Your task to perform on an android device: turn off picture-in-picture Image 0: 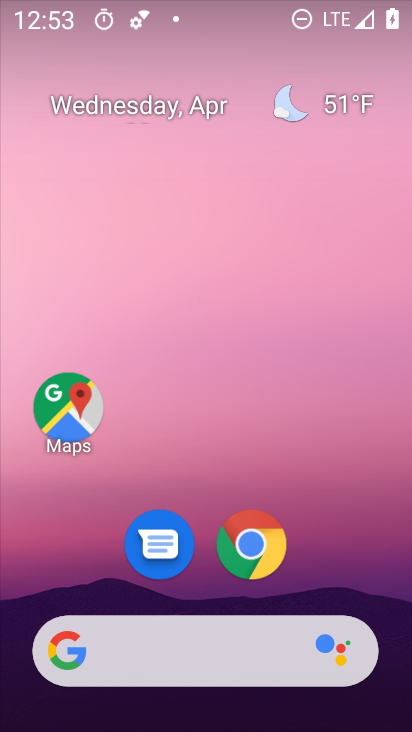
Step 0: drag from (349, 546) to (340, 149)
Your task to perform on an android device: turn off picture-in-picture Image 1: 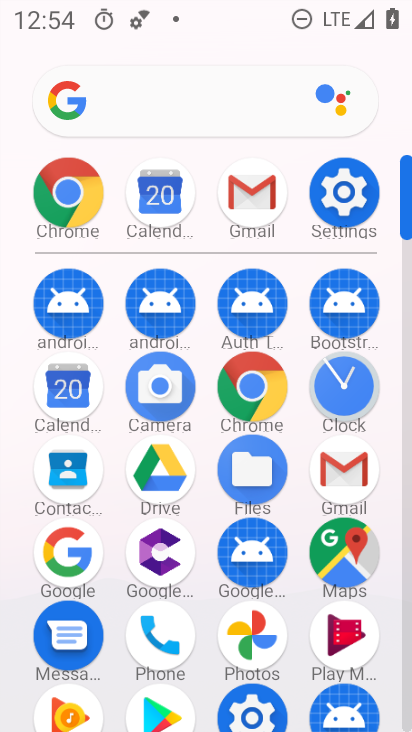
Step 1: click (365, 184)
Your task to perform on an android device: turn off picture-in-picture Image 2: 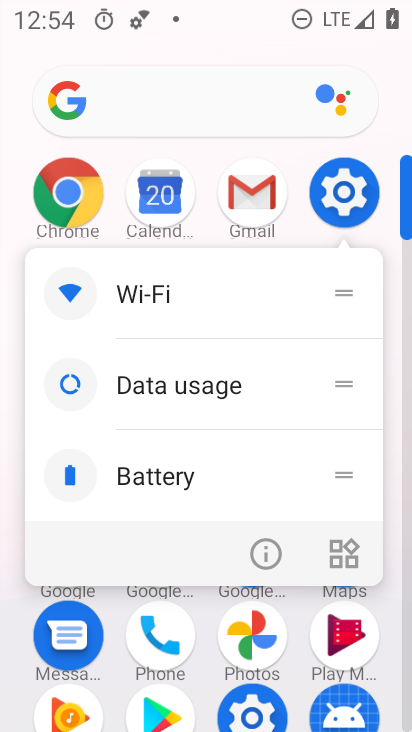
Step 2: click (346, 174)
Your task to perform on an android device: turn off picture-in-picture Image 3: 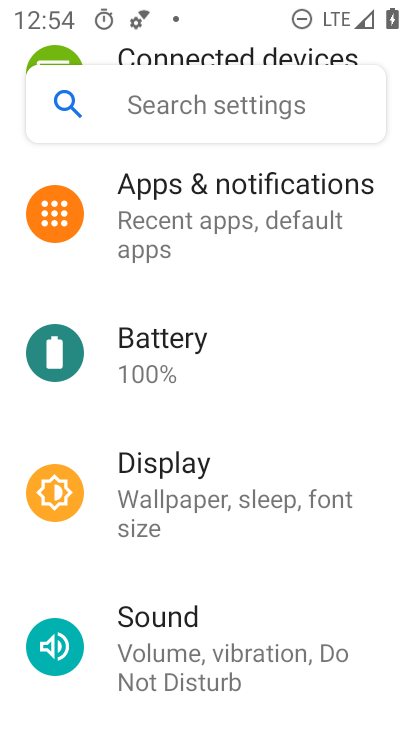
Step 3: drag from (380, 545) to (375, 421)
Your task to perform on an android device: turn off picture-in-picture Image 4: 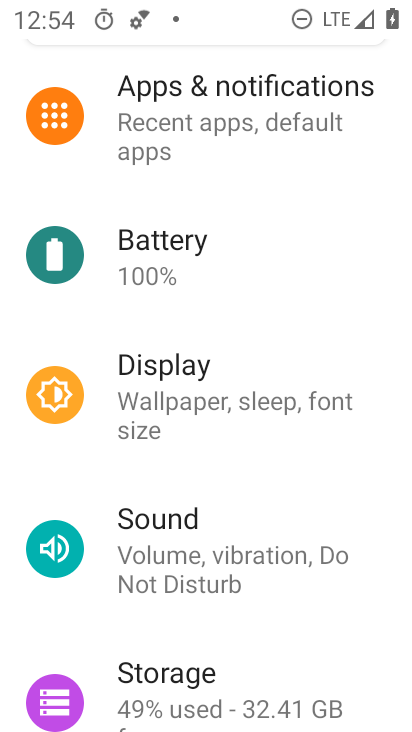
Step 4: drag from (348, 625) to (411, 423)
Your task to perform on an android device: turn off picture-in-picture Image 5: 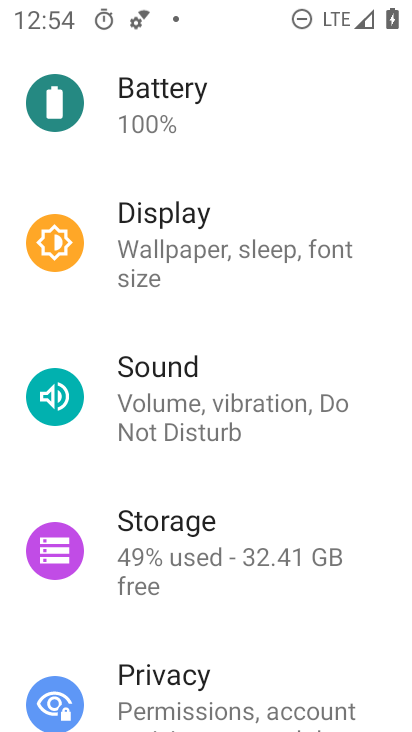
Step 5: drag from (375, 506) to (377, 280)
Your task to perform on an android device: turn off picture-in-picture Image 6: 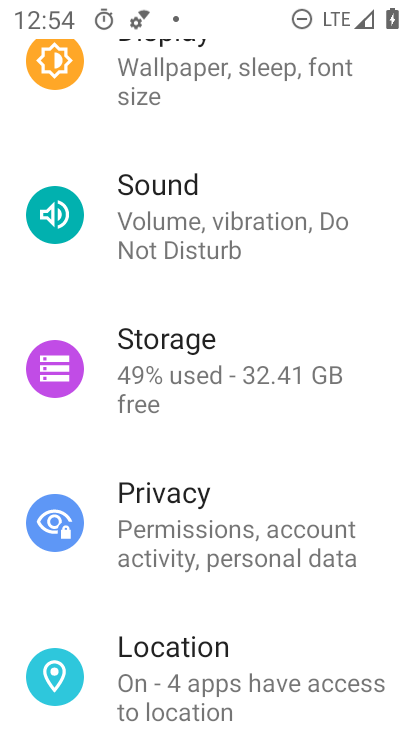
Step 6: drag from (375, 594) to (366, 398)
Your task to perform on an android device: turn off picture-in-picture Image 7: 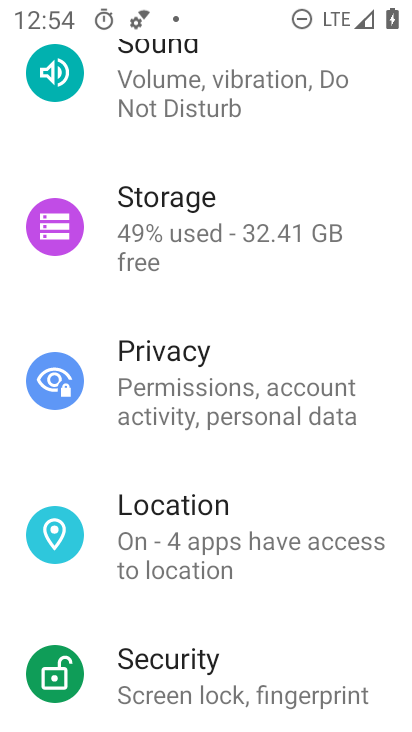
Step 7: drag from (362, 607) to (370, 449)
Your task to perform on an android device: turn off picture-in-picture Image 8: 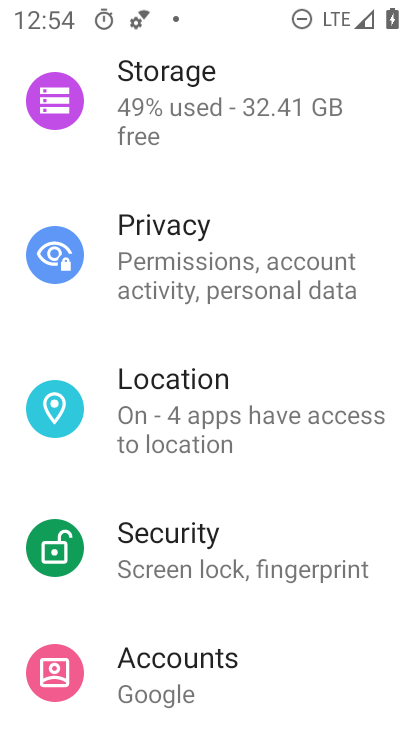
Step 8: drag from (366, 658) to (380, 502)
Your task to perform on an android device: turn off picture-in-picture Image 9: 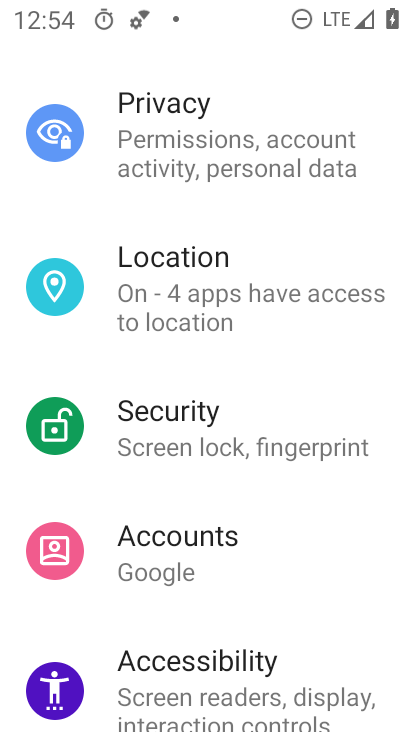
Step 9: drag from (341, 550) to (399, 352)
Your task to perform on an android device: turn off picture-in-picture Image 10: 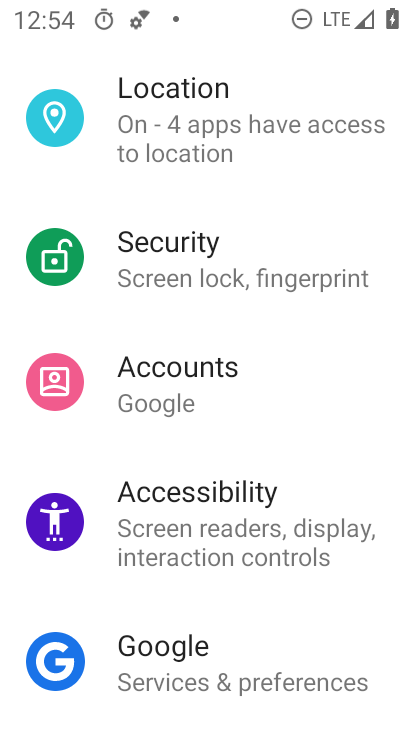
Step 10: drag from (340, 617) to (340, 367)
Your task to perform on an android device: turn off picture-in-picture Image 11: 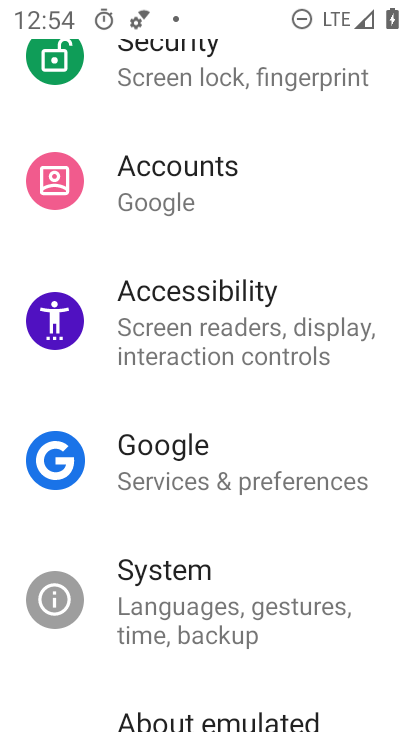
Step 11: drag from (369, 248) to (381, 413)
Your task to perform on an android device: turn off picture-in-picture Image 12: 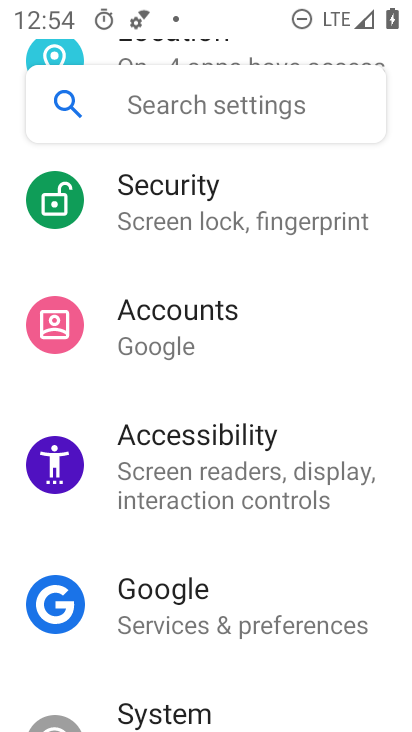
Step 12: drag from (391, 204) to (376, 407)
Your task to perform on an android device: turn off picture-in-picture Image 13: 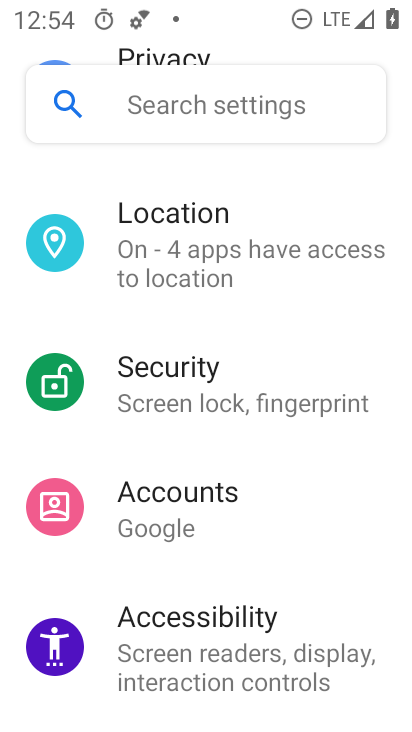
Step 13: drag from (395, 198) to (370, 385)
Your task to perform on an android device: turn off picture-in-picture Image 14: 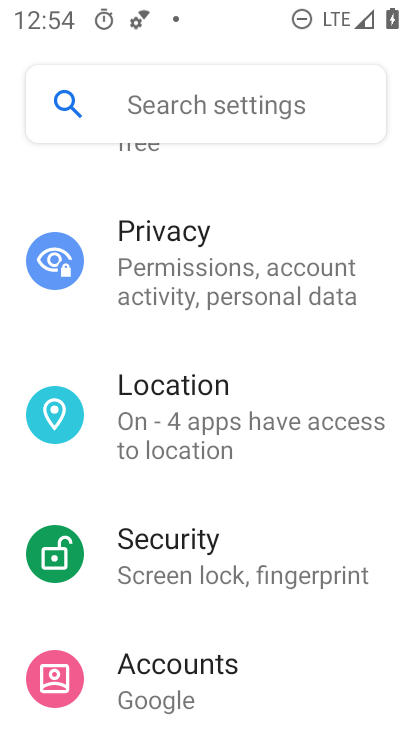
Step 14: drag from (386, 211) to (369, 392)
Your task to perform on an android device: turn off picture-in-picture Image 15: 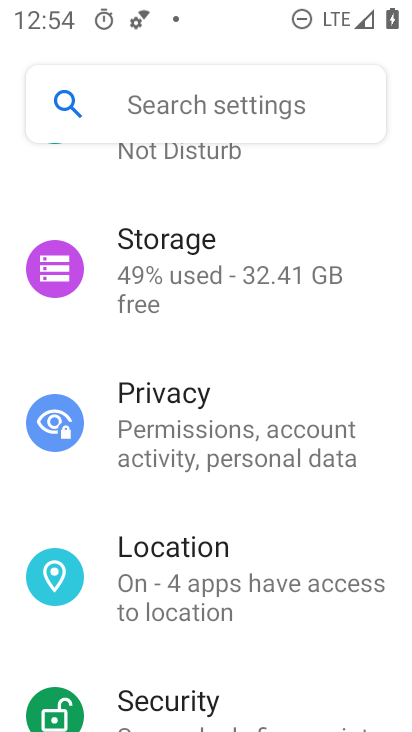
Step 15: drag from (366, 218) to (367, 412)
Your task to perform on an android device: turn off picture-in-picture Image 16: 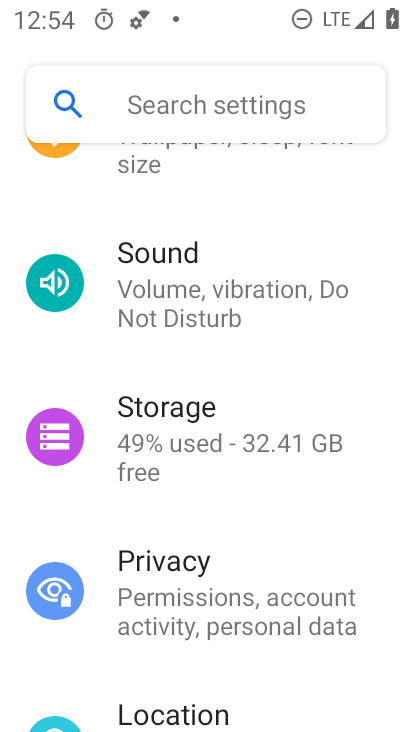
Step 16: drag from (370, 222) to (368, 403)
Your task to perform on an android device: turn off picture-in-picture Image 17: 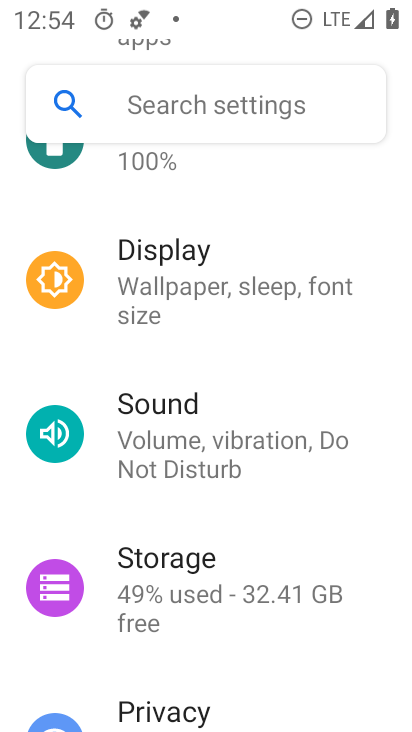
Step 17: drag from (369, 226) to (358, 417)
Your task to perform on an android device: turn off picture-in-picture Image 18: 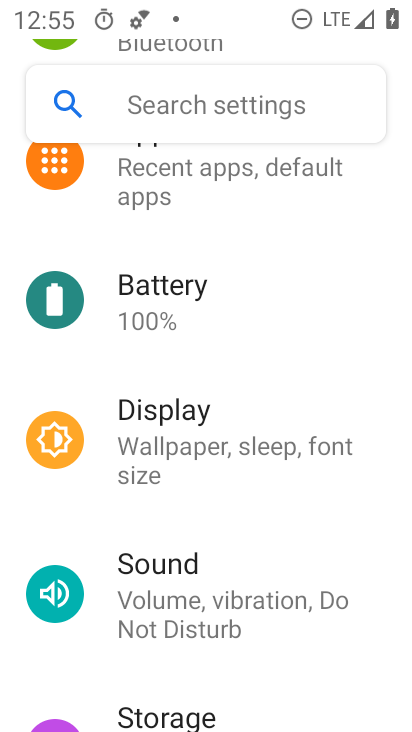
Step 18: drag from (352, 199) to (359, 359)
Your task to perform on an android device: turn off picture-in-picture Image 19: 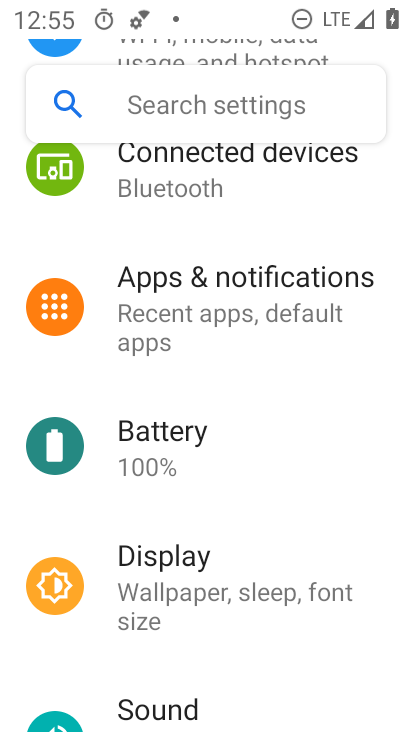
Step 19: click (246, 304)
Your task to perform on an android device: turn off picture-in-picture Image 20: 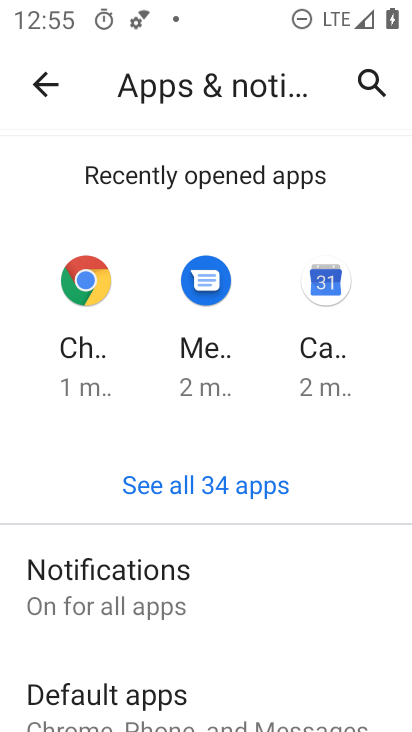
Step 20: drag from (310, 591) to (382, 316)
Your task to perform on an android device: turn off picture-in-picture Image 21: 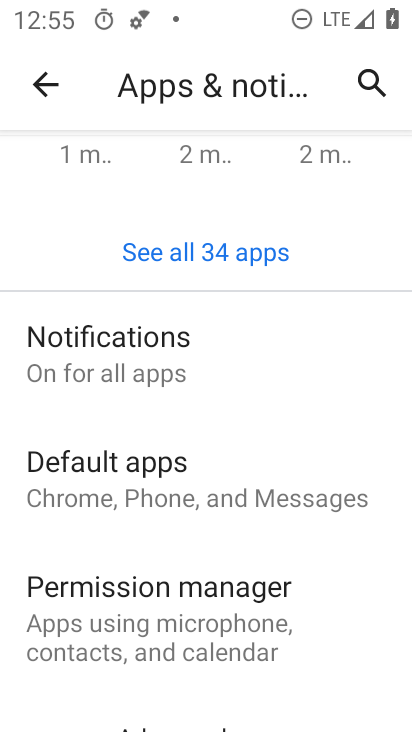
Step 21: drag from (328, 597) to (313, 381)
Your task to perform on an android device: turn off picture-in-picture Image 22: 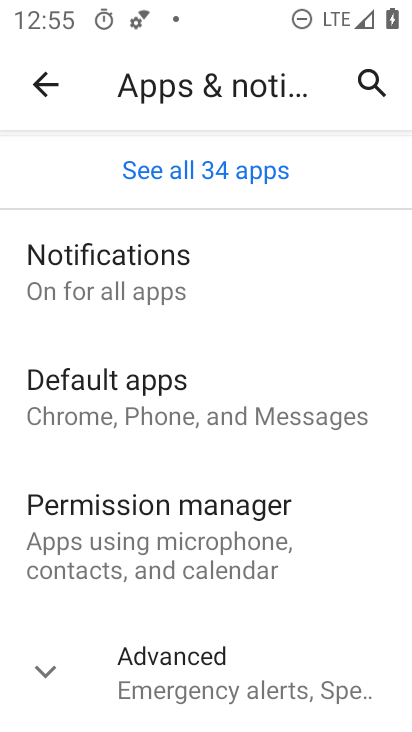
Step 22: click (181, 666)
Your task to perform on an android device: turn off picture-in-picture Image 23: 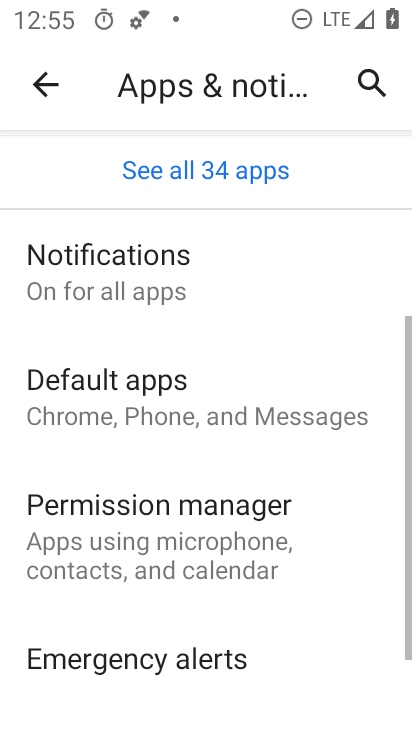
Step 23: drag from (331, 609) to (329, 343)
Your task to perform on an android device: turn off picture-in-picture Image 24: 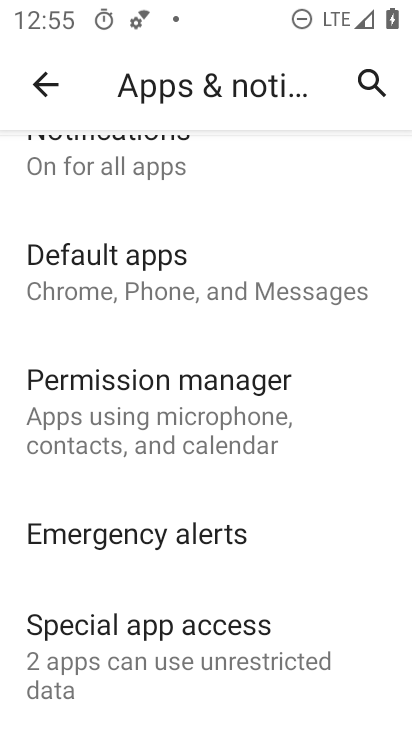
Step 24: click (195, 644)
Your task to perform on an android device: turn off picture-in-picture Image 25: 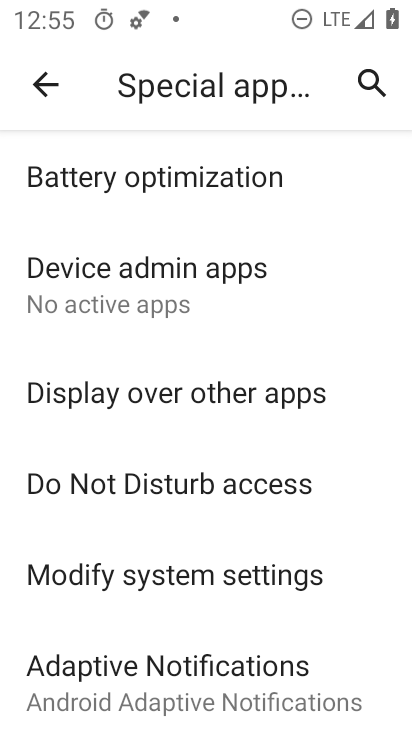
Step 25: drag from (347, 615) to (349, 420)
Your task to perform on an android device: turn off picture-in-picture Image 26: 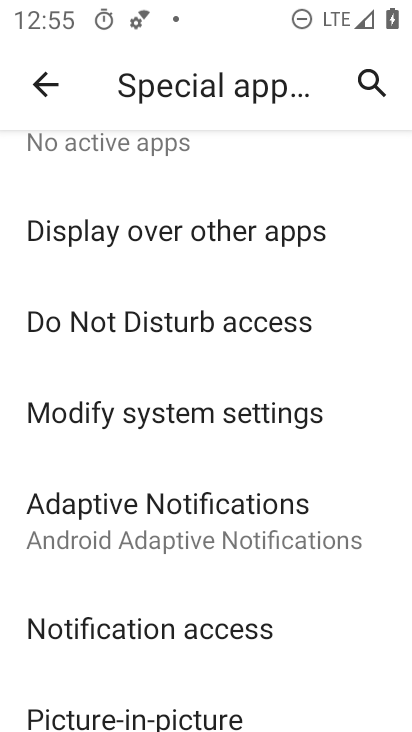
Step 26: drag from (343, 629) to (348, 465)
Your task to perform on an android device: turn off picture-in-picture Image 27: 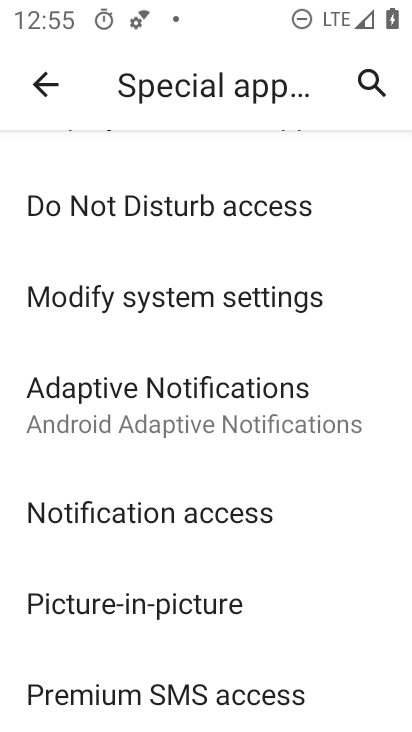
Step 27: drag from (332, 614) to (339, 465)
Your task to perform on an android device: turn off picture-in-picture Image 28: 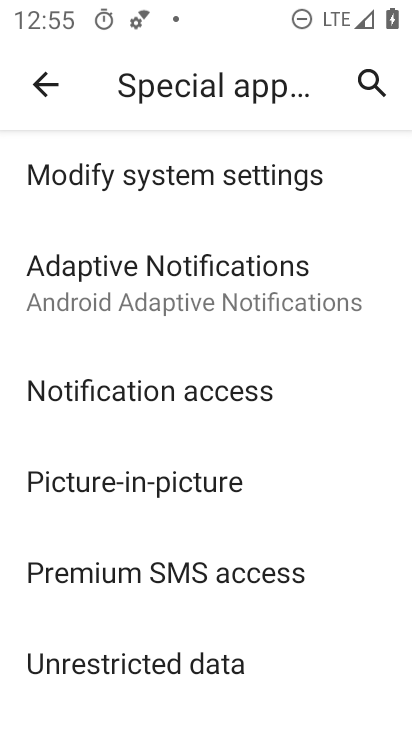
Step 28: click (148, 476)
Your task to perform on an android device: turn off picture-in-picture Image 29: 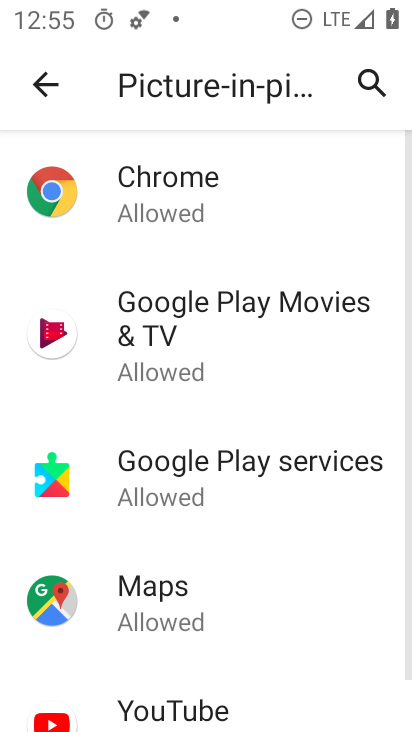
Step 29: drag from (268, 644) to (304, 415)
Your task to perform on an android device: turn off picture-in-picture Image 30: 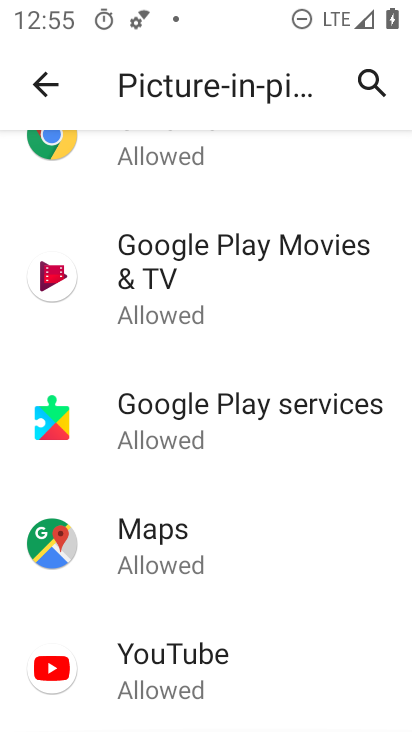
Step 30: click (180, 682)
Your task to perform on an android device: turn off picture-in-picture Image 31: 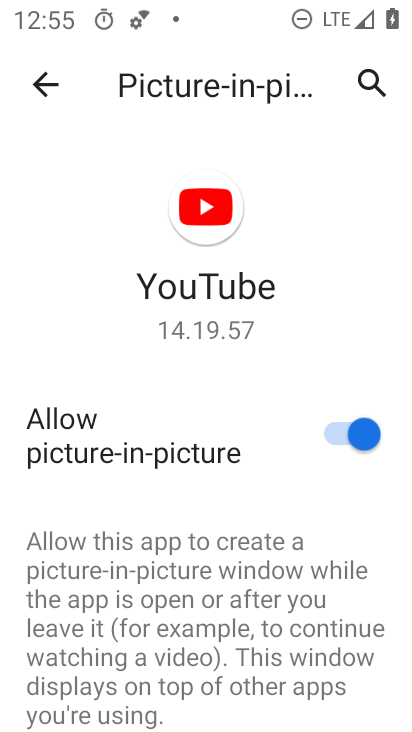
Step 31: click (339, 427)
Your task to perform on an android device: turn off picture-in-picture Image 32: 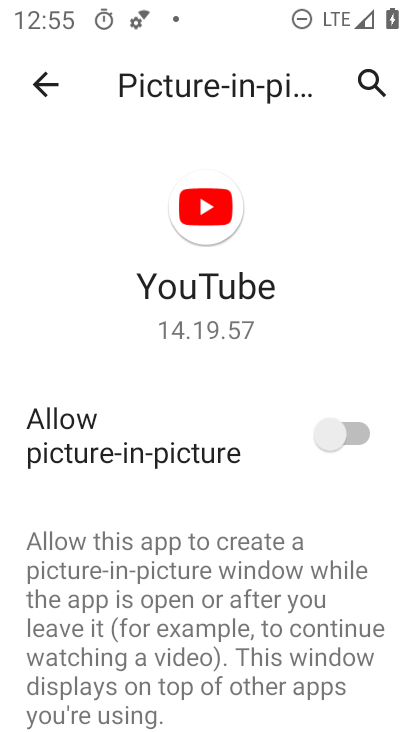
Step 32: task complete